Your task to perform on an android device: Search for sushi restaurants on Maps Image 0: 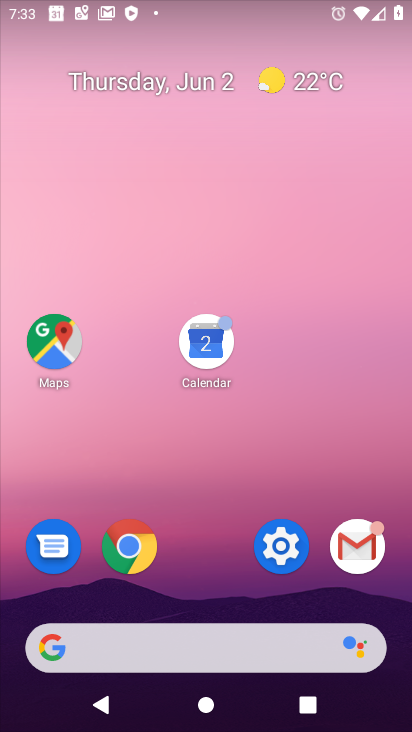
Step 0: click (75, 347)
Your task to perform on an android device: Search for sushi restaurants on Maps Image 1: 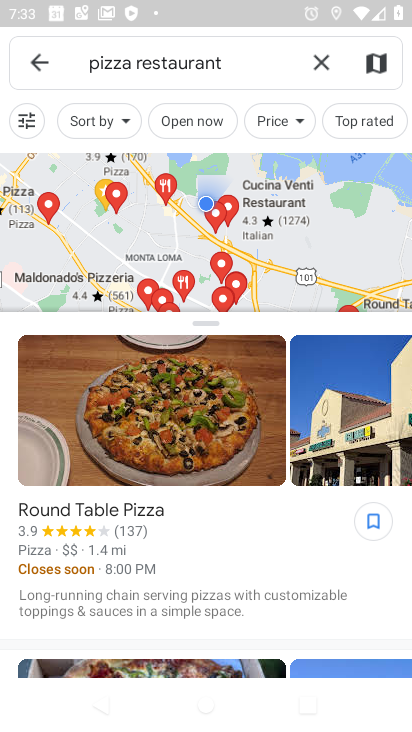
Step 1: click (313, 63)
Your task to perform on an android device: Search for sushi restaurants on Maps Image 2: 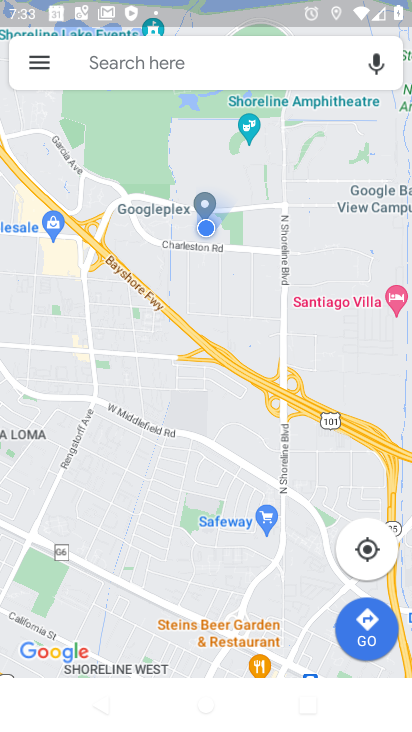
Step 2: click (215, 72)
Your task to perform on an android device: Search for sushi restaurants on Maps Image 3: 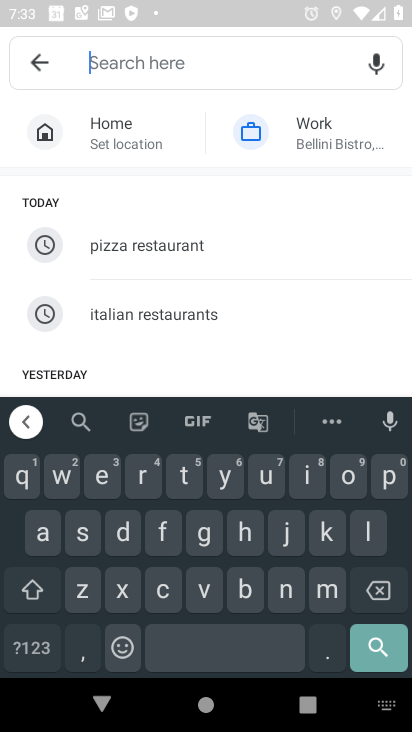
Step 3: click (82, 536)
Your task to perform on an android device: Search for sushi restaurants on Maps Image 4: 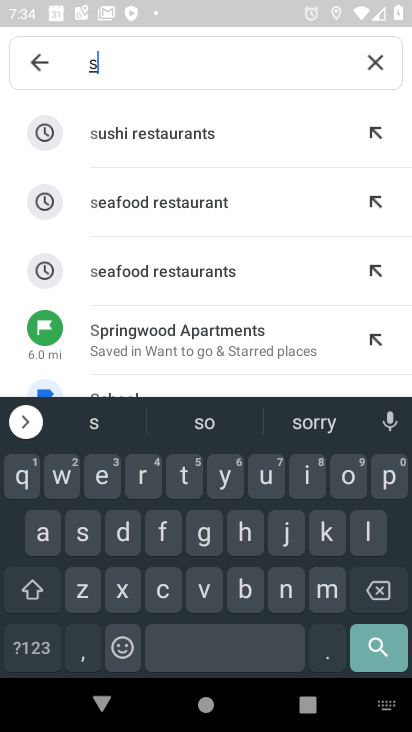
Step 4: click (170, 147)
Your task to perform on an android device: Search for sushi restaurants on Maps Image 5: 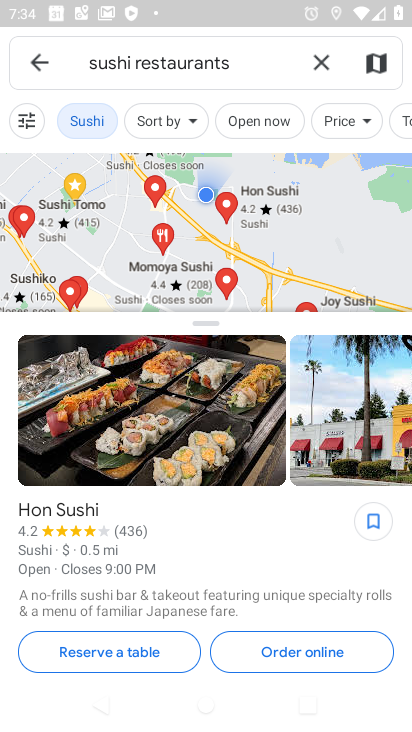
Step 5: task complete